Your task to perform on an android device: turn off location history Image 0: 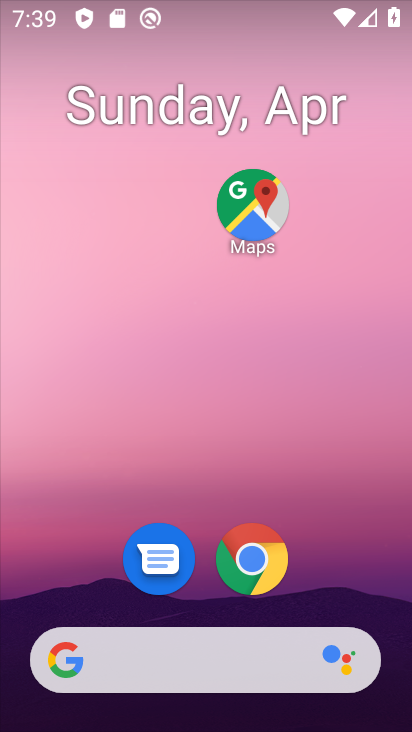
Step 0: drag from (48, 554) to (155, 189)
Your task to perform on an android device: turn off location history Image 1: 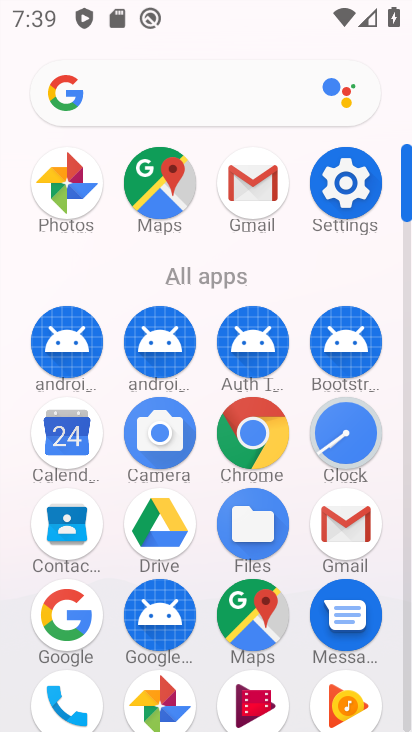
Step 1: click (360, 175)
Your task to perform on an android device: turn off location history Image 2: 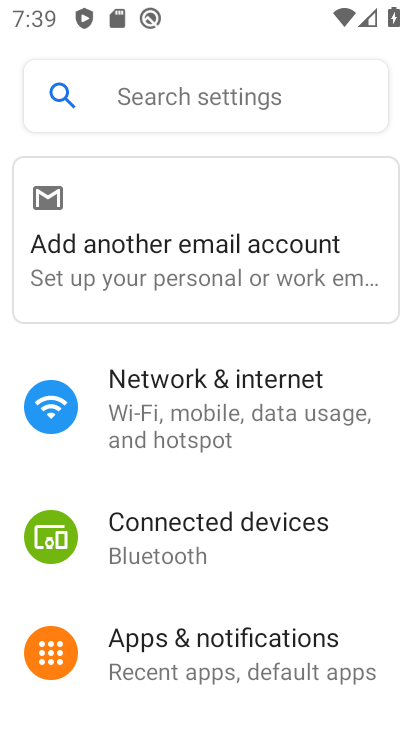
Step 2: click (219, 659)
Your task to perform on an android device: turn off location history Image 3: 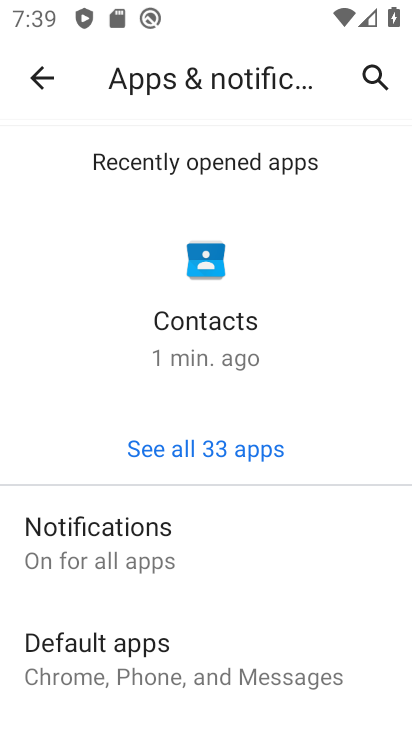
Step 3: drag from (165, 625) to (262, 286)
Your task to perform on an android device: turn off location history Image 4: 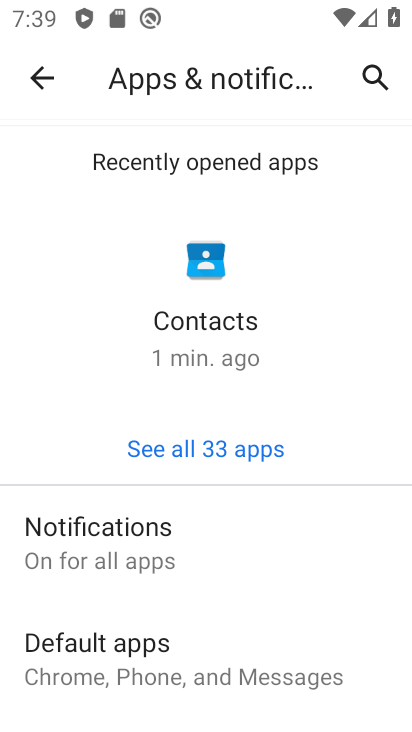
Step 4: press back button
Your task to perform on an android device: turn off location history Image 5: 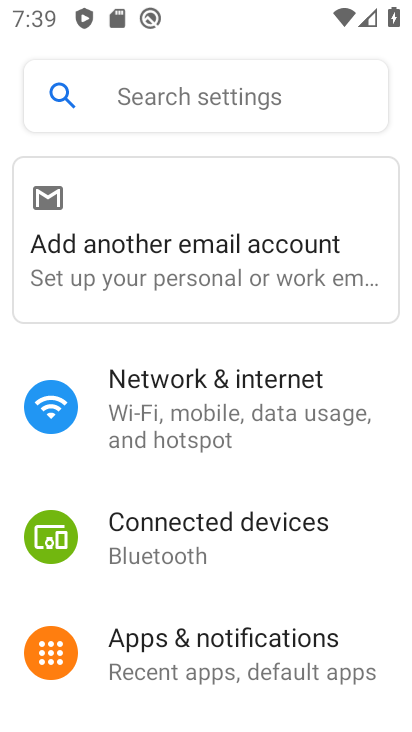
Step 5: drag from (79, 660) to (200, 305)
Your task to perform on an android device: turn off location history Image 6: 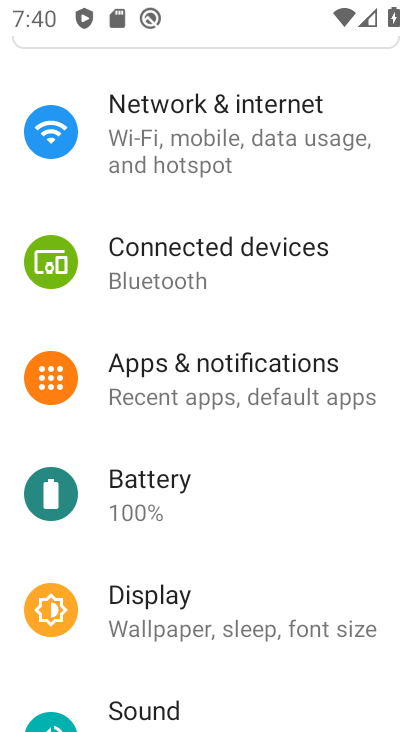
Step 6: drag from (141, 601) to (245, 254)
Your task to perform on an android device: turn off location history Image 7: 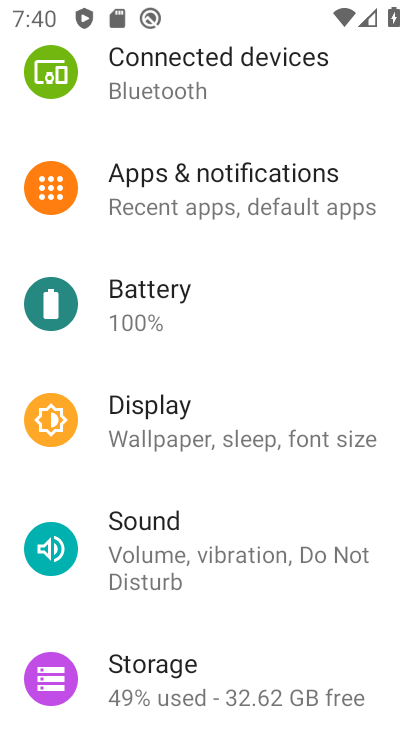
Step 7: drag from (195, 649) to (298, 280)
Your task to perform on an android device: turn off location history Image 8: 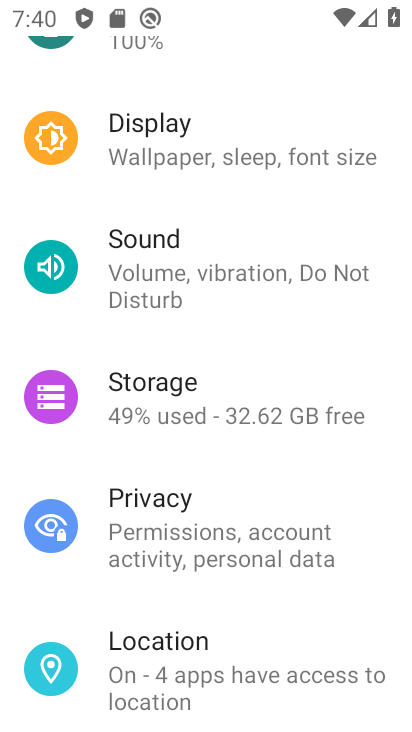
Step 8: click (138, 648)
Your task to perform on an android device: turn off location history Image 9: 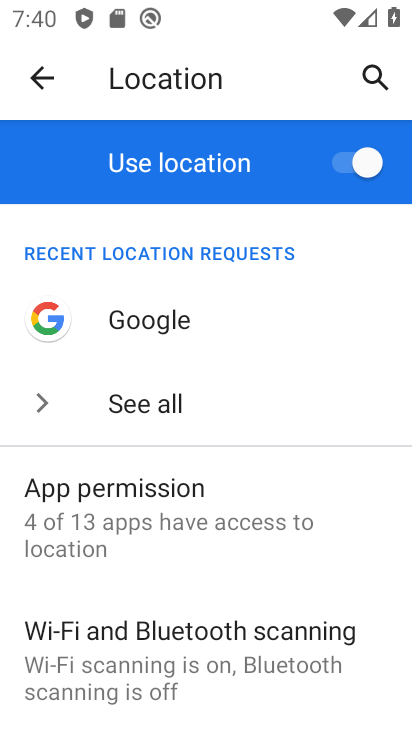
Step 9: drag from (134, 647) to (262, 306)
Your task to perform on an android device: turn off location history Image 10: 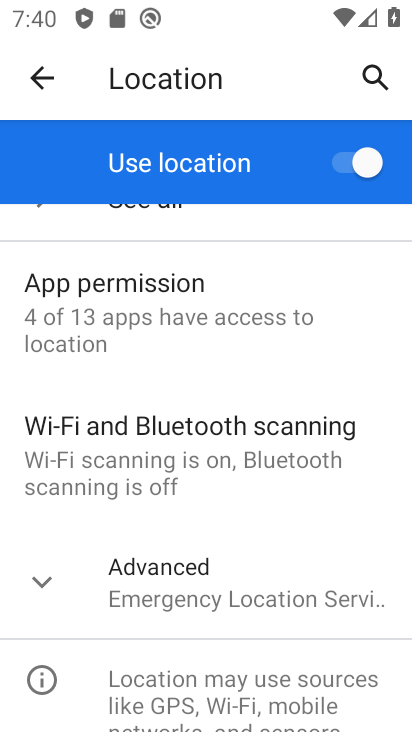
Step 10: click (215, 575)
Your task to perform on an android device: turn off location history Image 11: 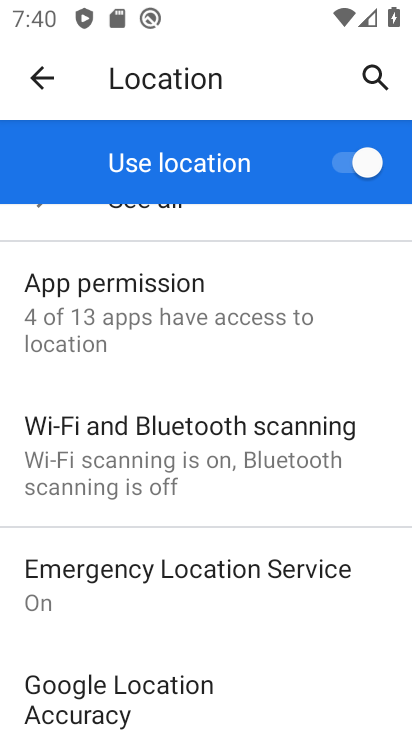
Step 11: drag from (89, 670) to (216, 340)
Your task to perform on an android device: turn off location history Image 12: 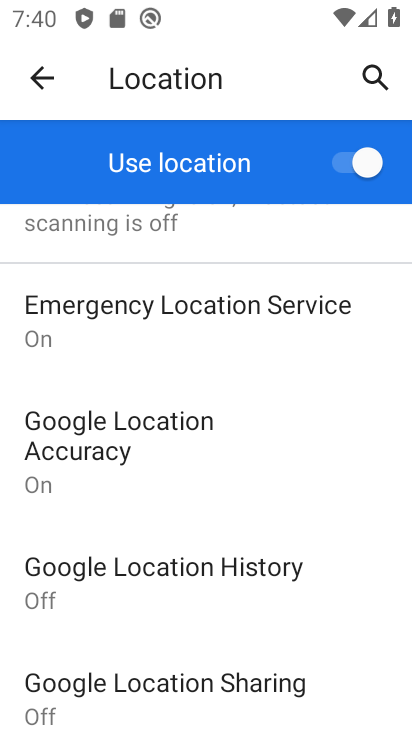
Step 12: click (186, 578)
Your task to perform on an android device: turn off location history Image 13: 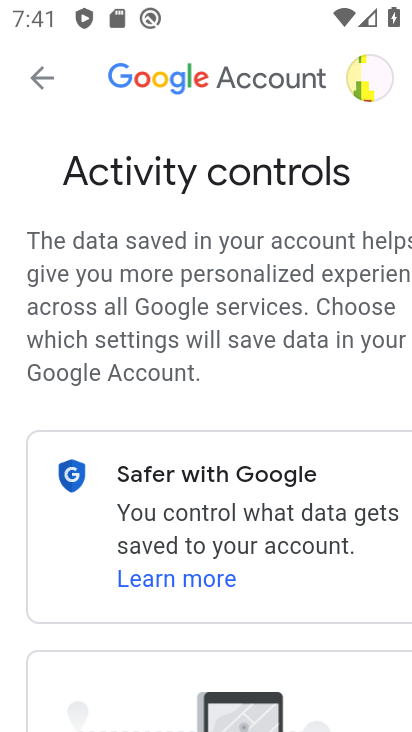
Step 13: drag from (161, 677) to (254, 353)
Your task to perform on an android device: turn off location history Image 14: 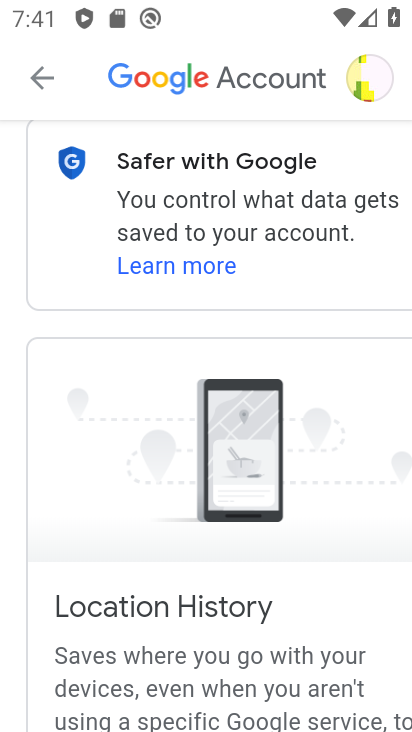
Step 14: drag from (217, 594) to (297, 250)
Your task to perform on an android device: turn off location history Image 15: 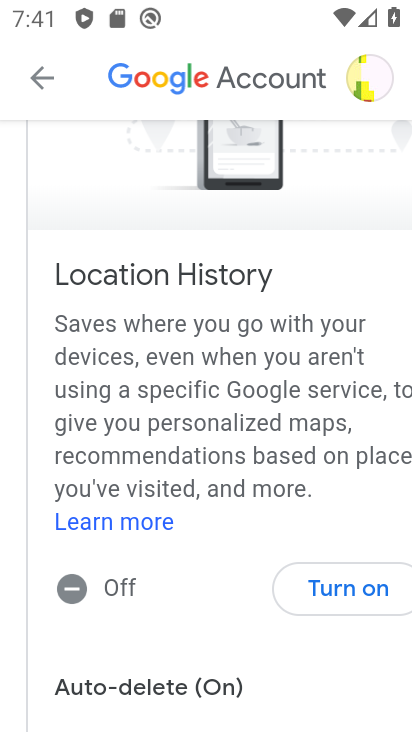
Step 15: click (343, 584)
Your task to perform on an android device: turn off location history Image 16: 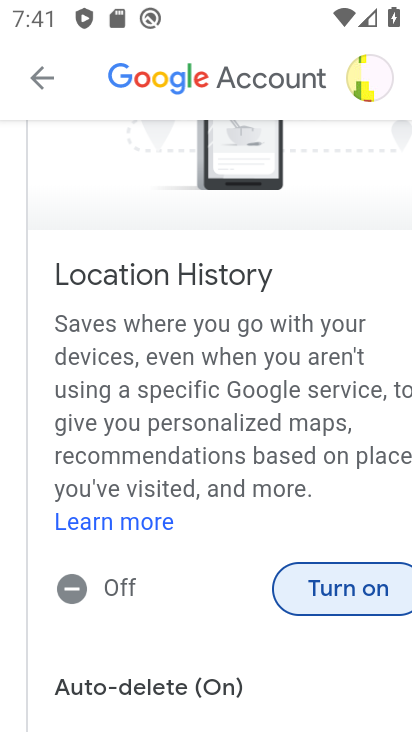
Step 16: click (328, 583)
Your task to perform on an android device: turn off location history Image 17: 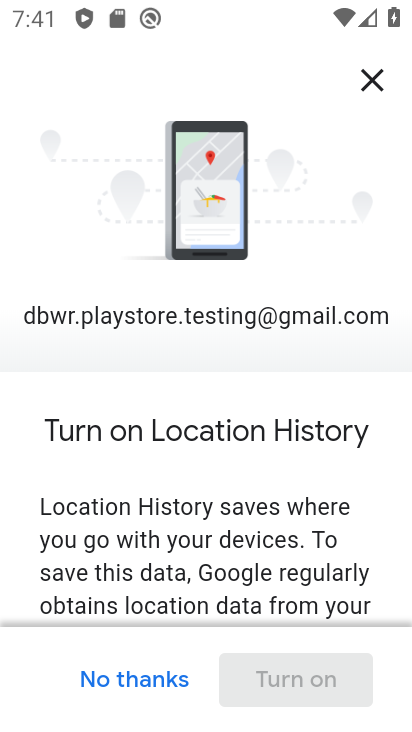
Step 17: drag from (135, 595) to (270, 214)
Your task to perform on an android device: turn off location history Image 18: 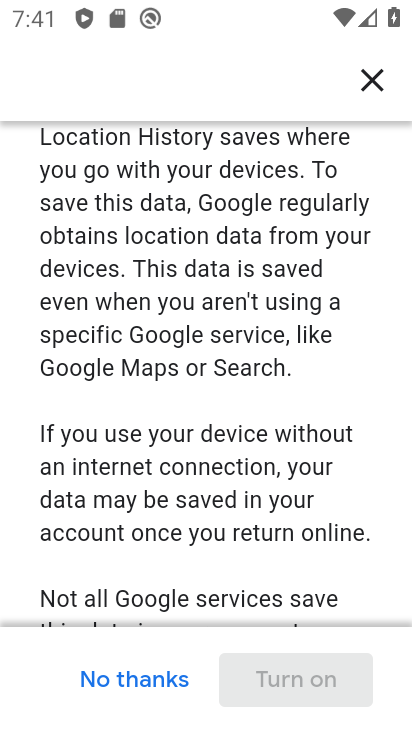
Step 18: drag from (193, 526) to (318, 190)
Your task to perform on an android device: turn off location history Image 19: 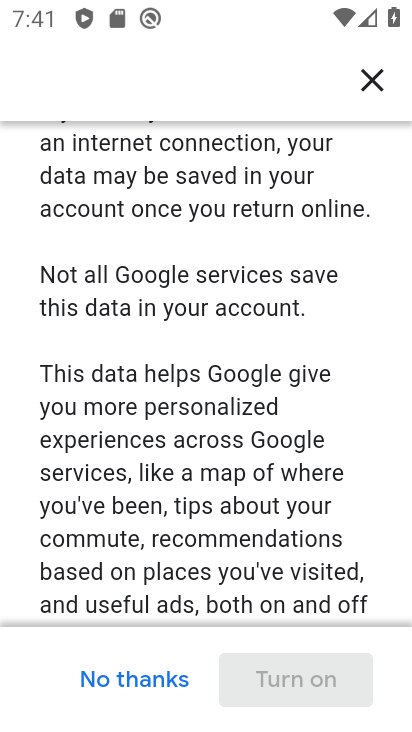
Step 19: drag from (190, 553) to (342, 207)
Your task to perform on an android device: turn off location history Image 20: 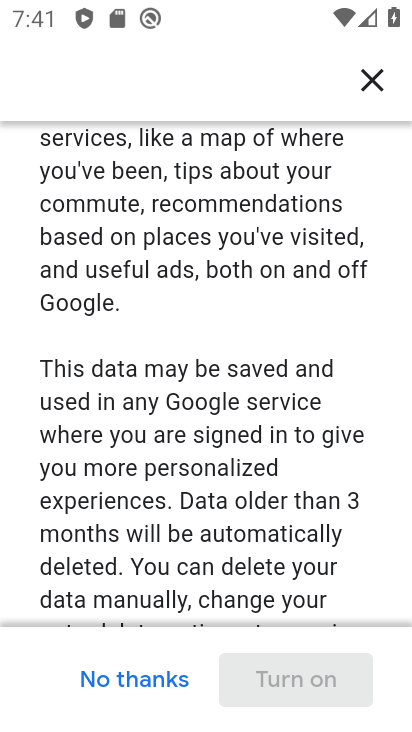
Step 20: drag from (195, 560) to (342, 195)
Your task to perform on an android device: turn off location history Image 21: 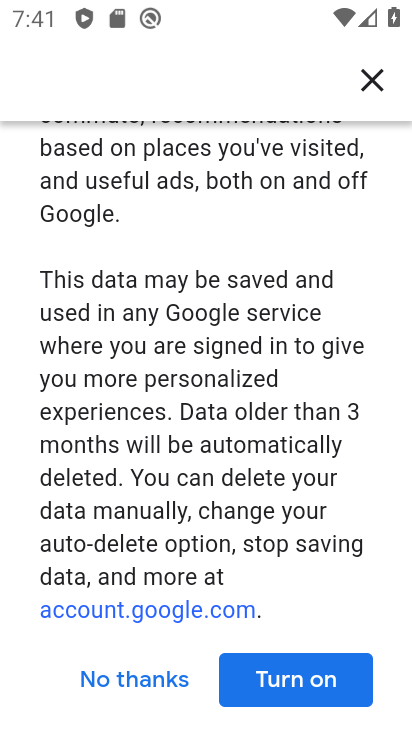
Step 21: click (327, 685)
Your task to perform on an android device: turn off location history Image 22: 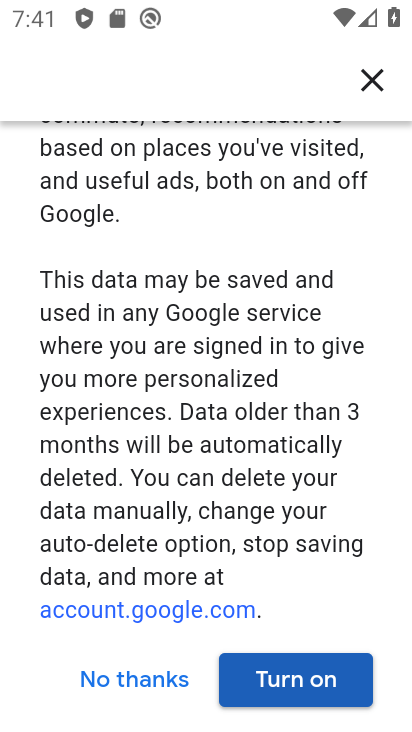
Step 22: click (327, 682)
Your task to perform on an android device: turn off location history Image 23: 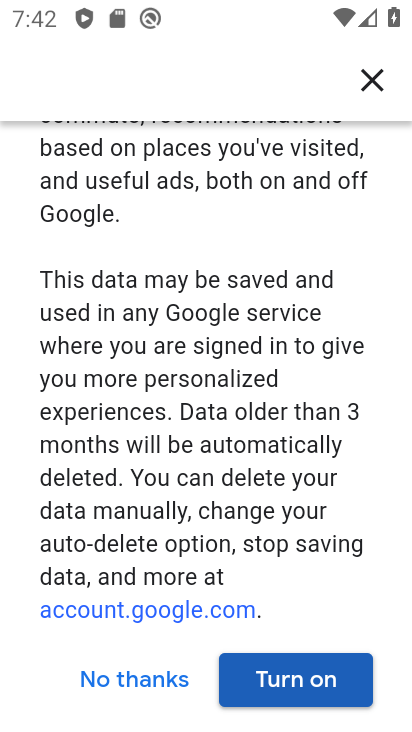
Step 23: click (261, 673)
Your task to perform on an android device: turn off location history Image 24: 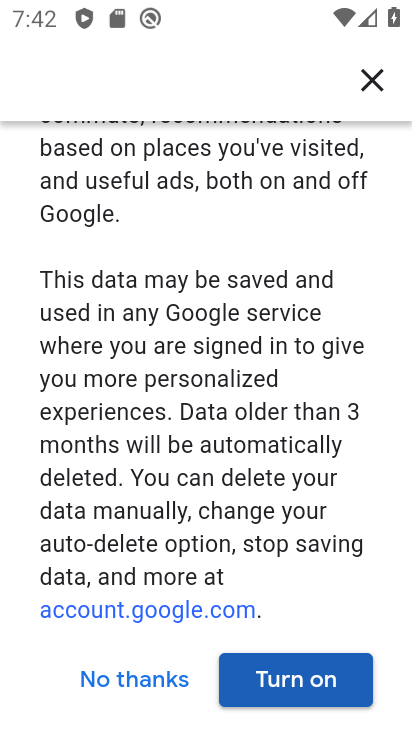
Step 24: task complete